Your task to perform on an android device: toggle data saver in the chrome app Image 0: 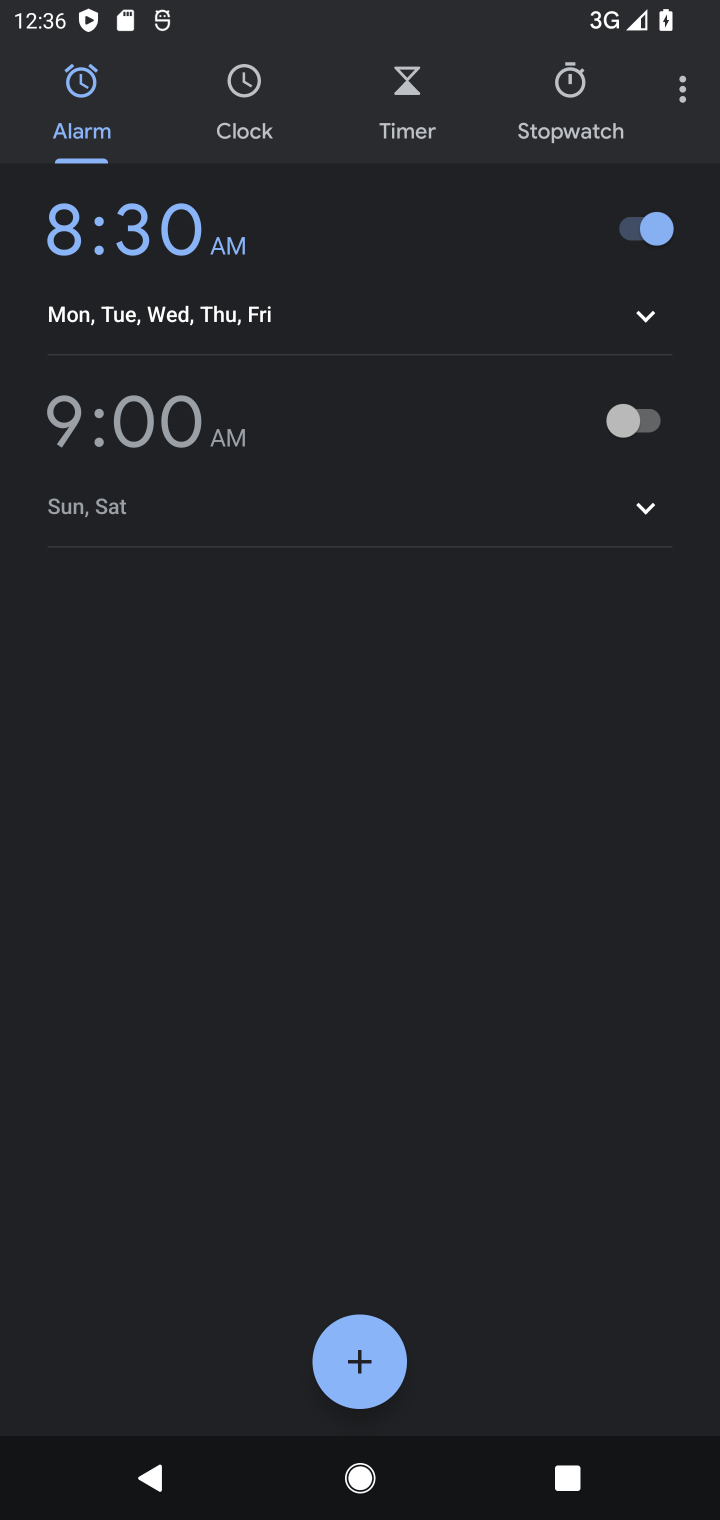
Step 0: press home button
Your task to perform on an android device: toggle data saver in the chrome app Image 1: 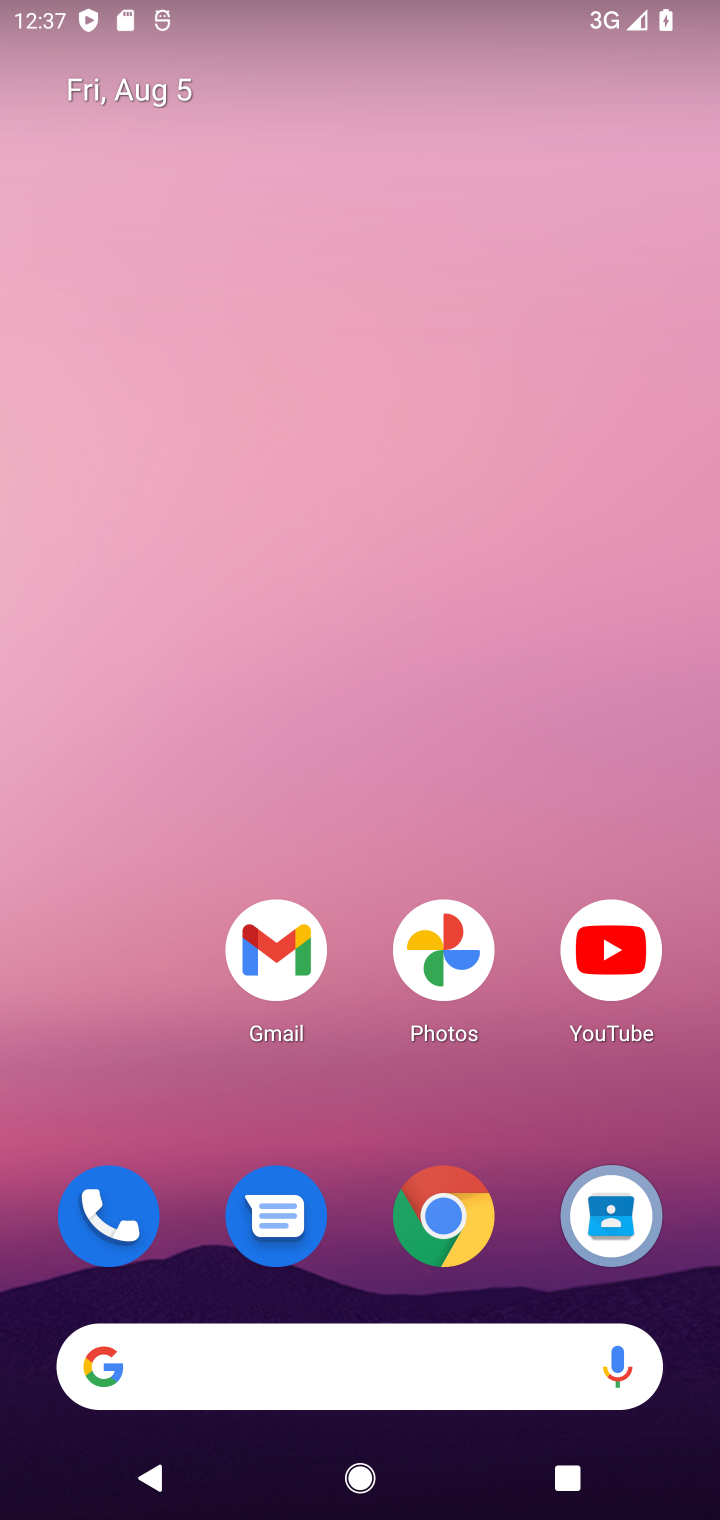
Step 1: drag from (484, 1340) to (433, 83)
Your task to perform on an android device: toggle data saver in the chrome app Image 2: 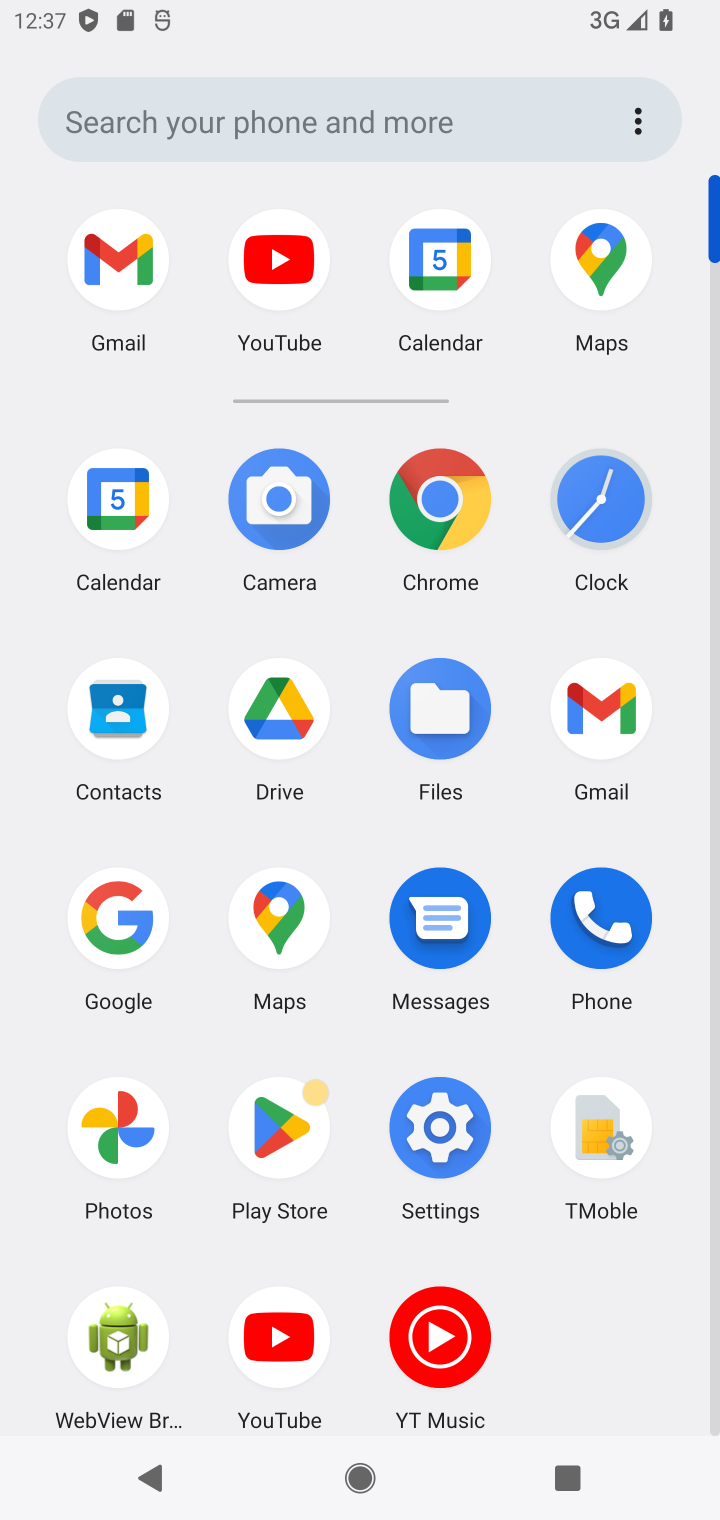
Step 2: click (450, 486)
Your task to perform on an android device: toggle data saver in the chrome app Image 3: 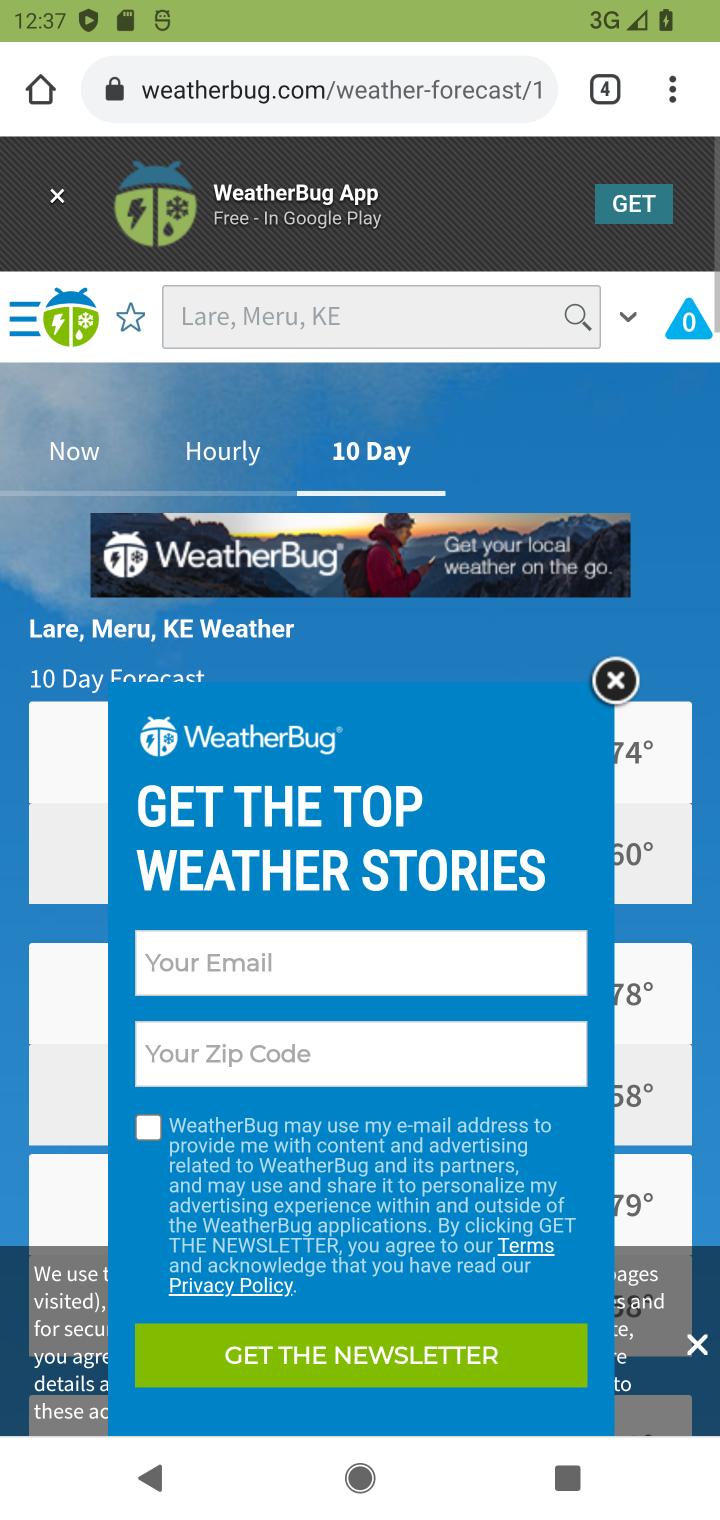
Step 3: drag from (669, 92) to (424, 1217)
Your task to perform on an android device: toggle data saver in the chrome app Image 4: 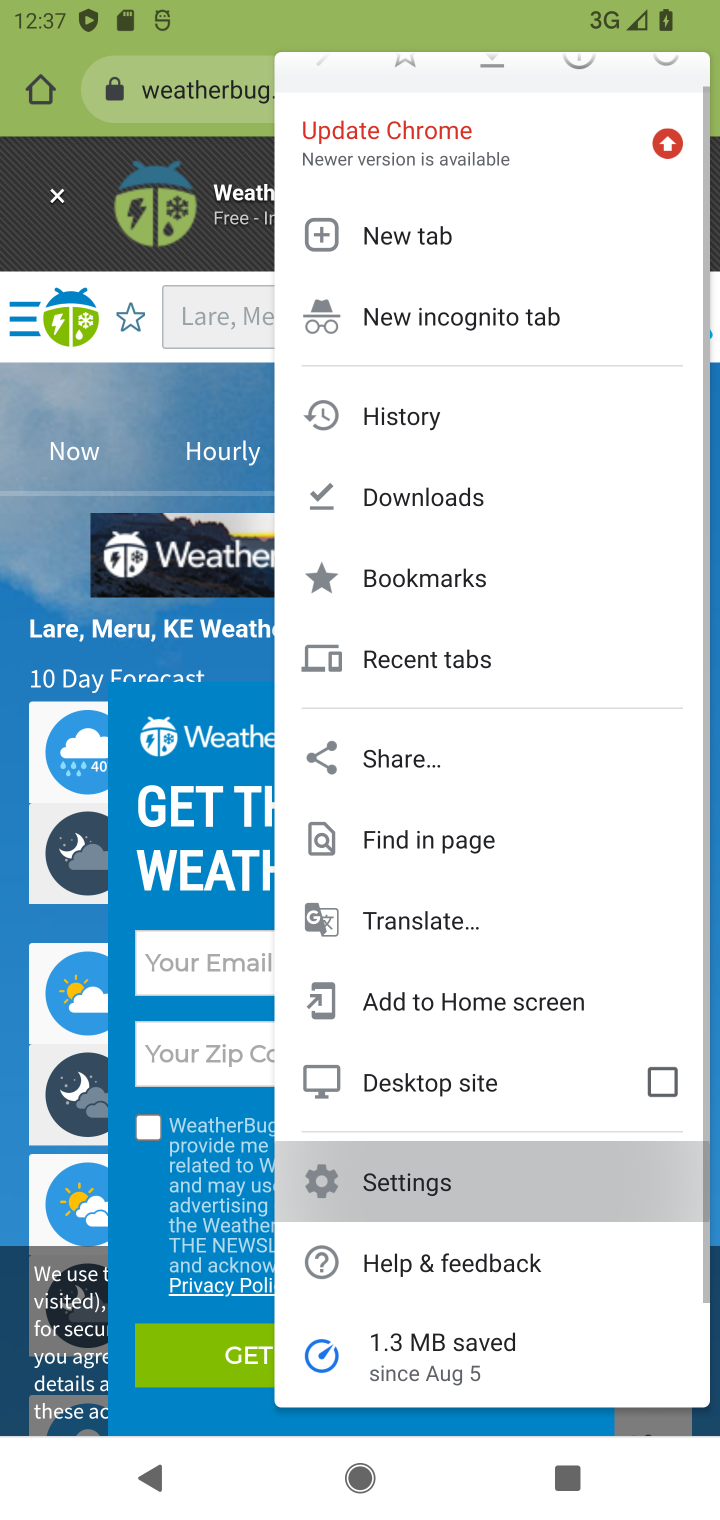
Step 4: click (424, 1217)
Your task to perform on an android device: toggle data saver in the chrome app Image 5: 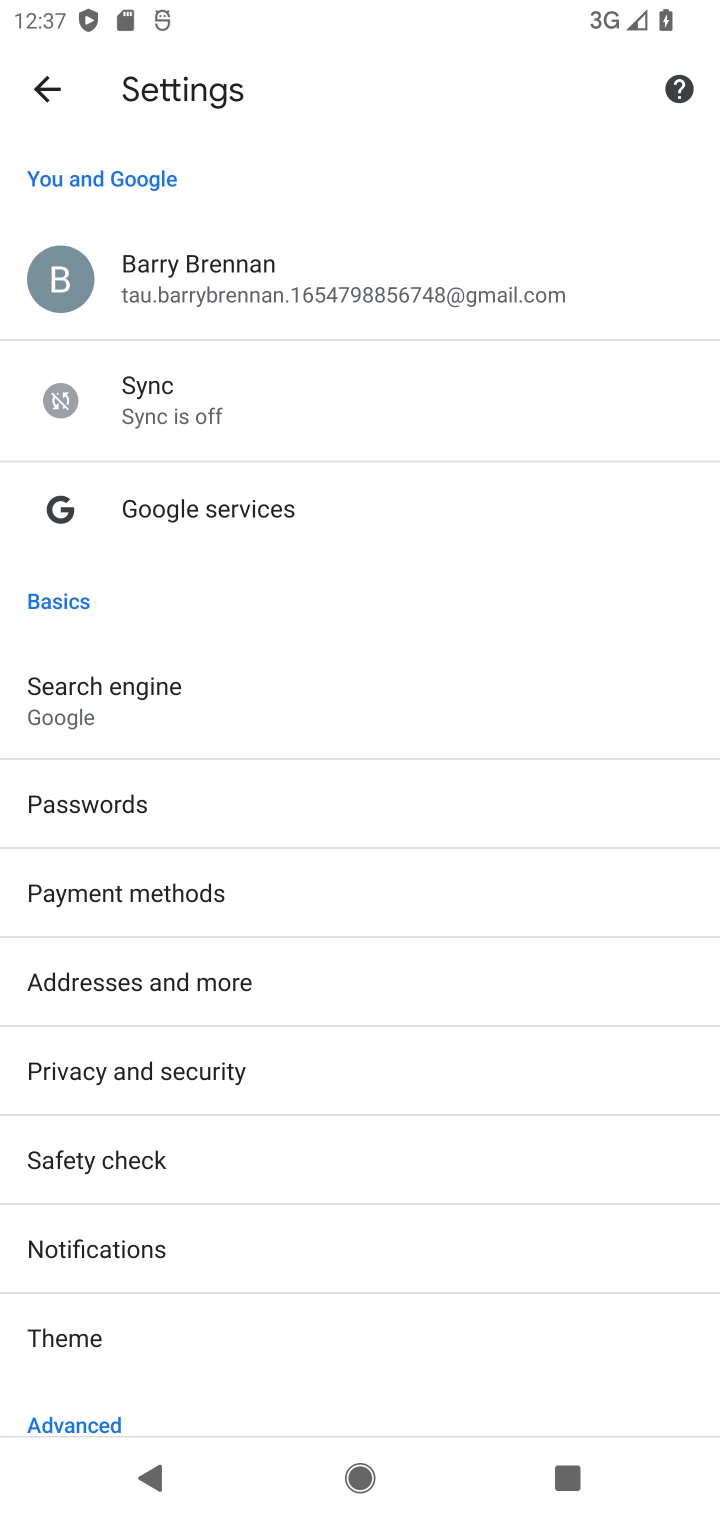
Step 5: drag from (276, 1283) to (345, 572)
Your task to perform on an android device: toggle data saver in the chrome app Image 6: 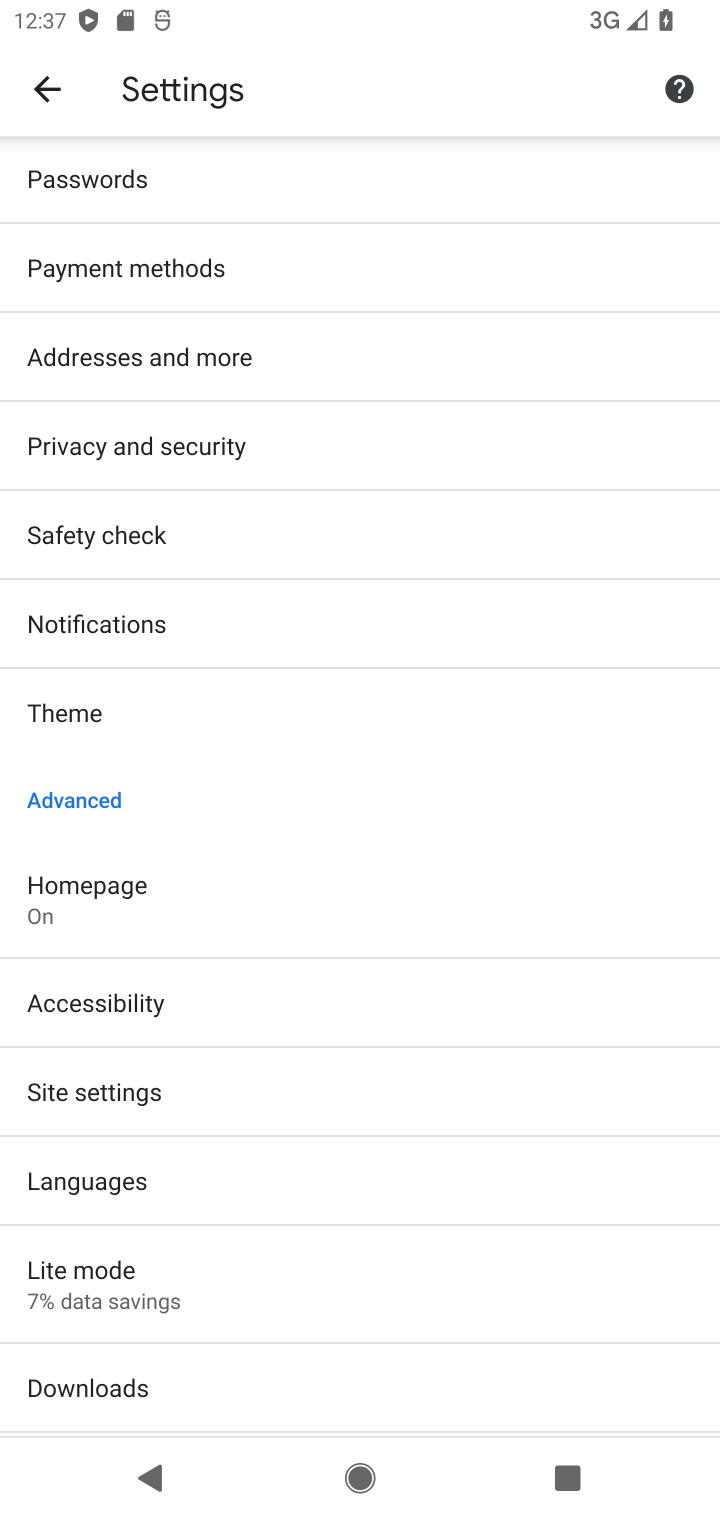
Step 6: click (167, 1297)
Your task to perform on an android device: toggle data saver in the chrome app Image 7: 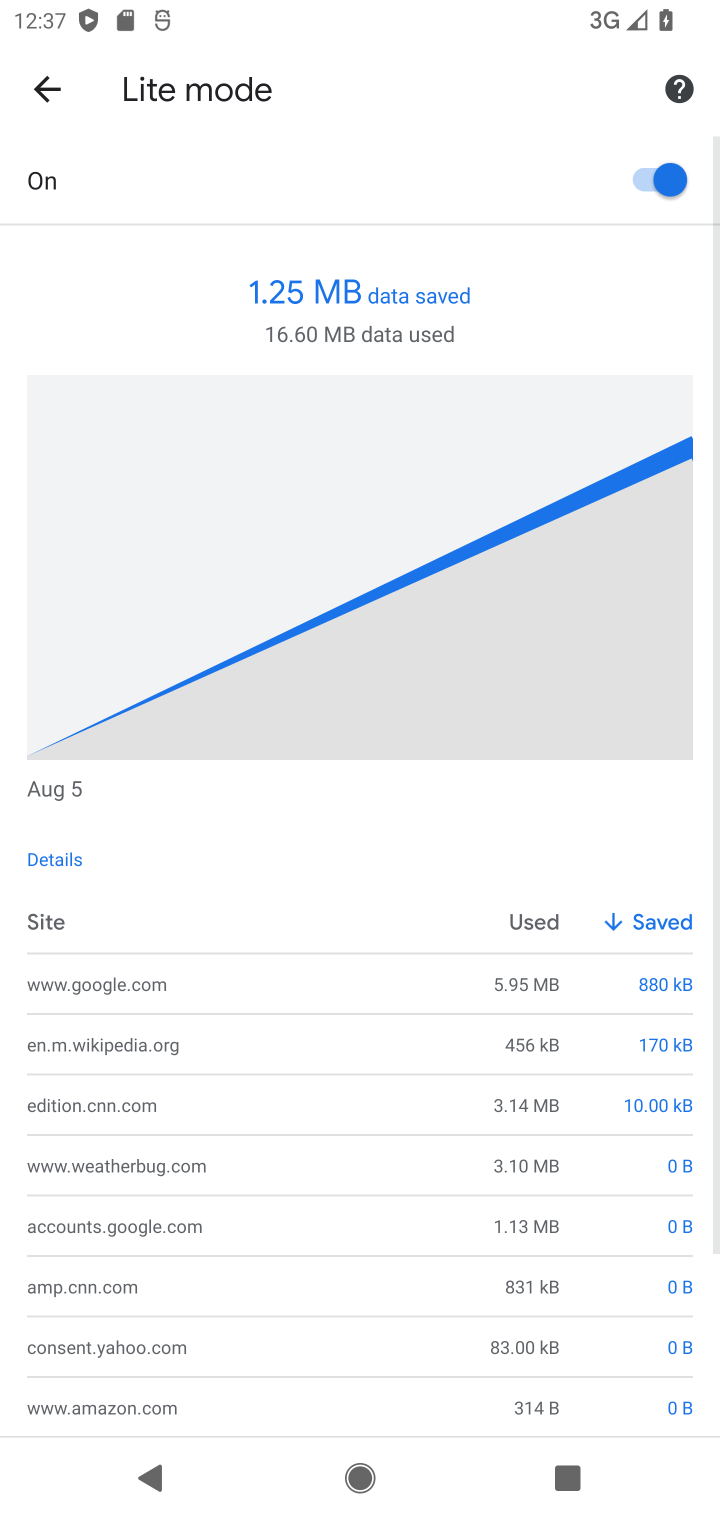
Step 7: click (650, 167)
Your task to perform on an android device: toggle data saver in the chrome app Image 8: 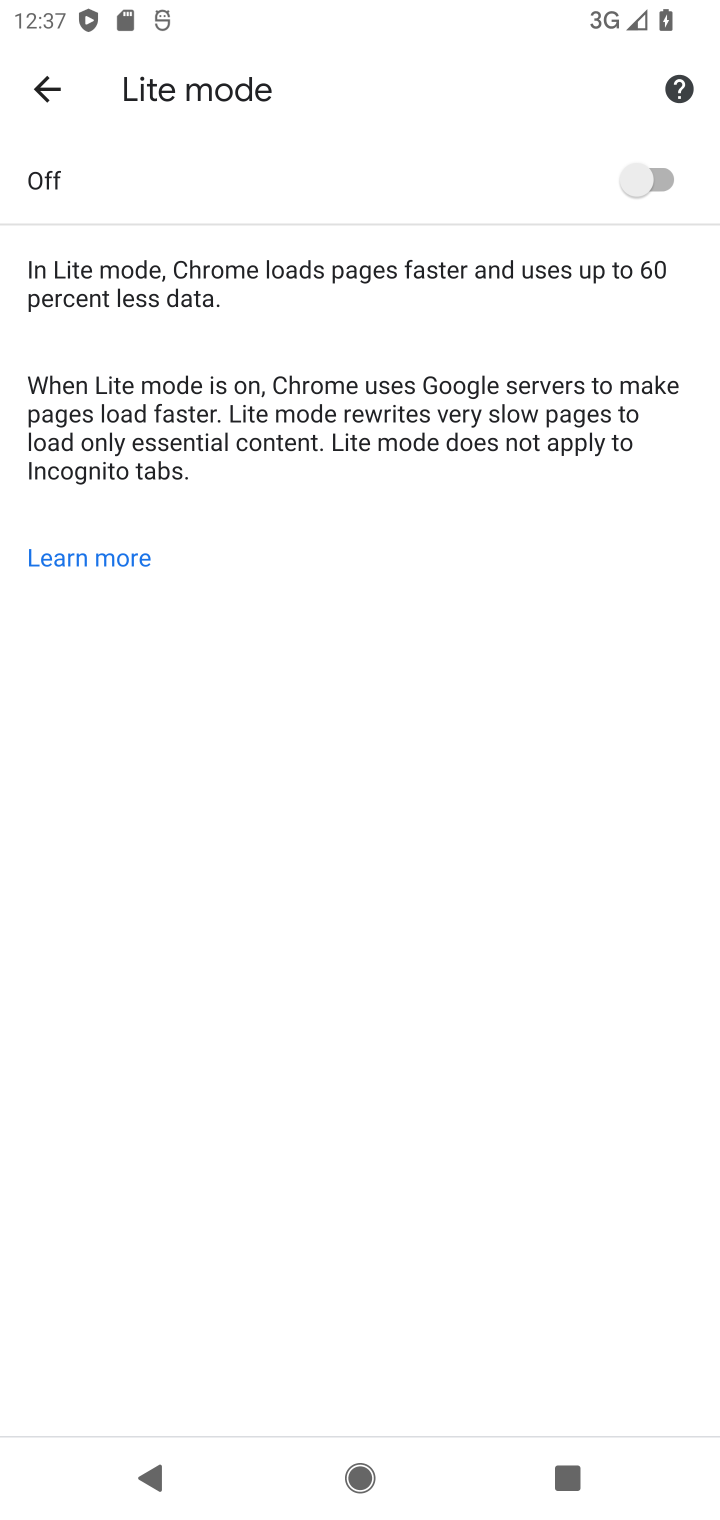
Step 8: task complete